Your task to perform on an android device: Open display settings Image 0: 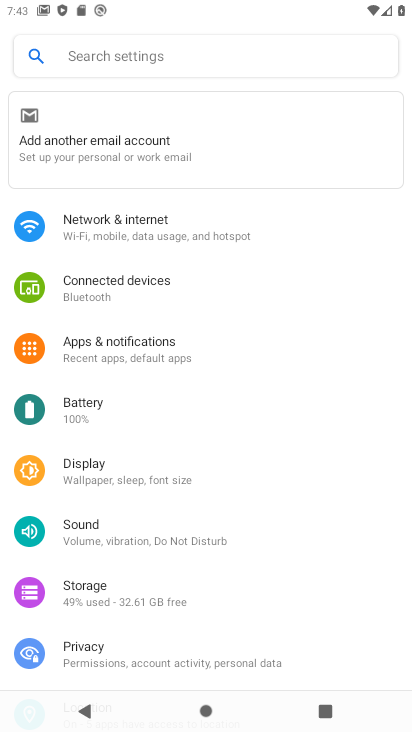
Step 0: press home button
Your task to perform on an android device: Open display settings Image 1: 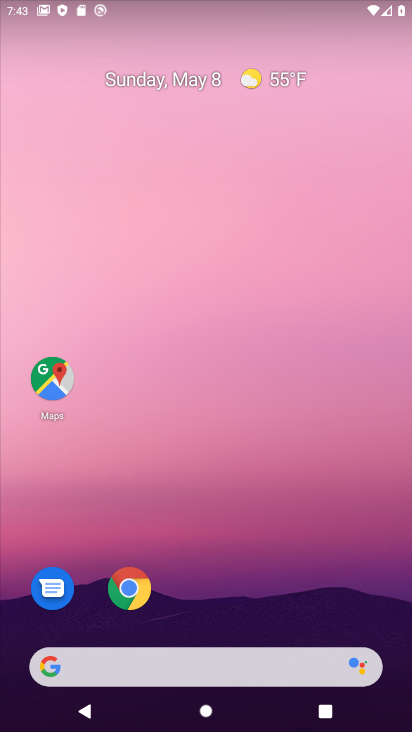
Step 1: drag from (344, 619) to (337, 102)
Your task to perform on an android device: Open display settings Image 2: 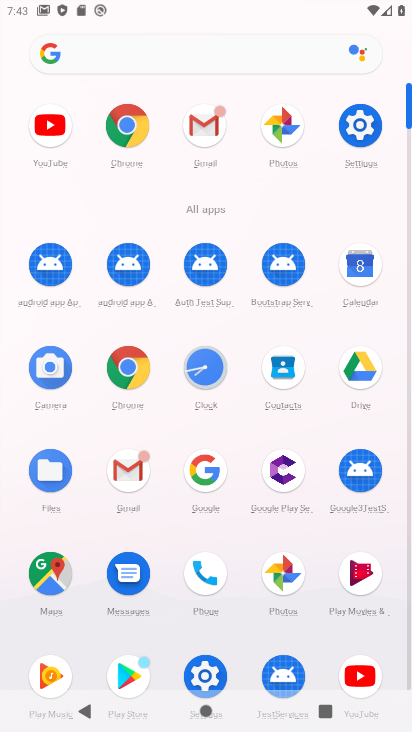
Step 2: click (201, 673)
Your task to perform on an android device: Open display settings Image 3: 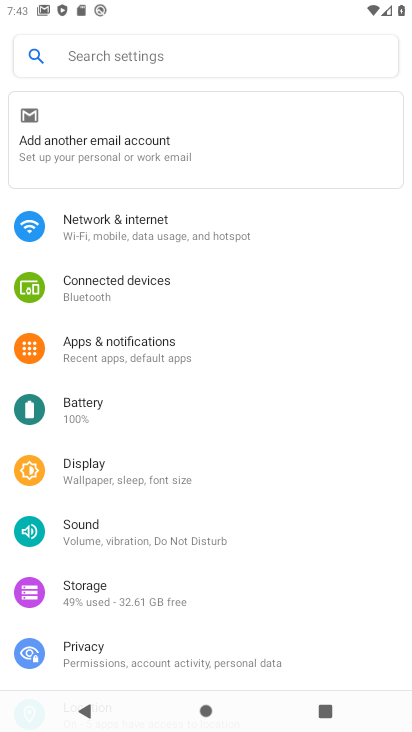
Step 3: click (106, 474)
Your task to perform on an android device: Open display settings Image 4: 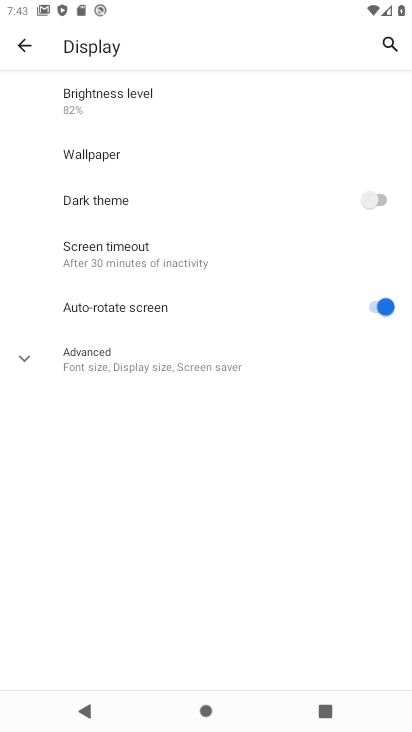
Step 4: task complete